Your task to perform on an android device: Open notification settings Image 0: 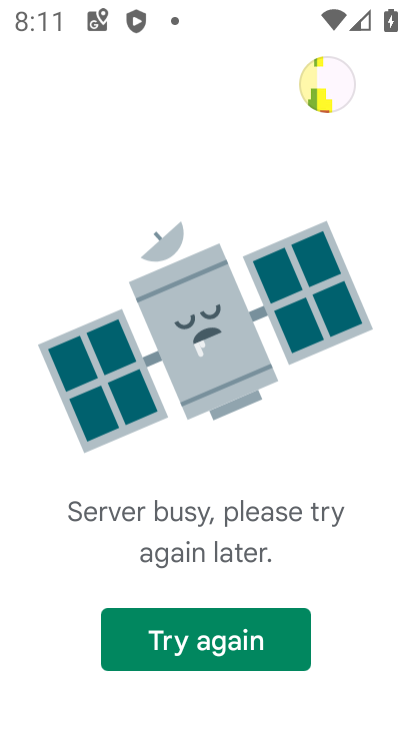
Step 0: press home button
Your task to perform on an android device: Open notification settings Image 1: 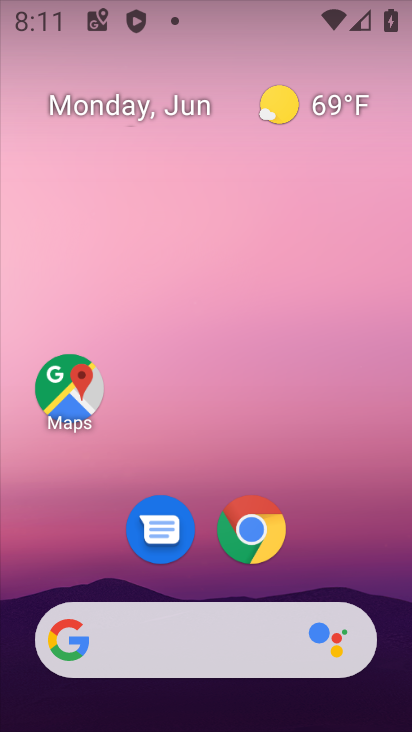
Step 1: drag from (367, 522) to (378, 351)
Your task to perform on an android device: Open notification settings Image 2: 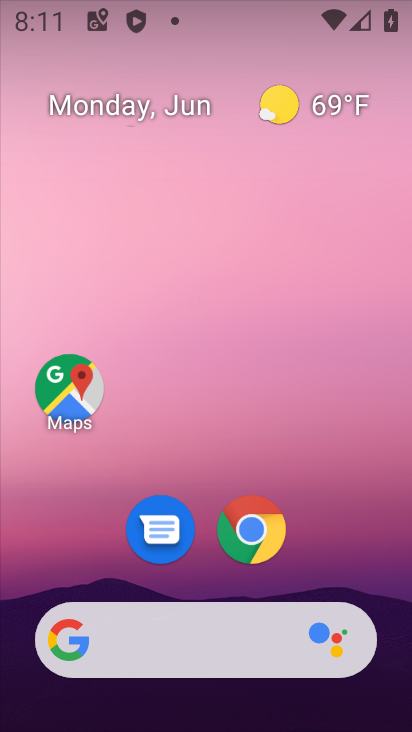
Step 2: drag from (367, 486) to (366, 250)
Your task to perform on an android device: Open notification settings Image 3: 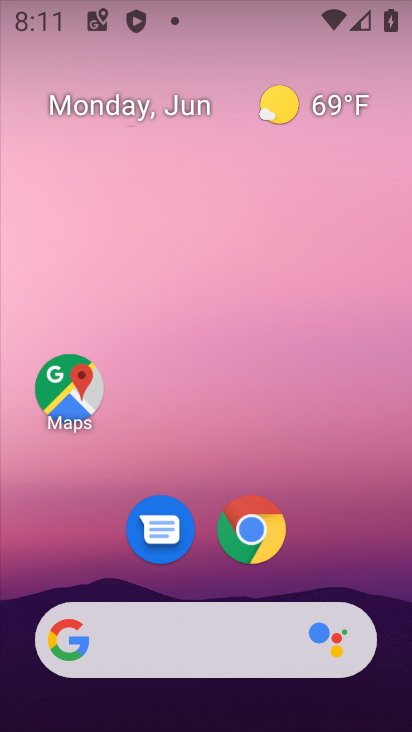
Step 3: drag from (351, 541) to (376, 236)
Your task to perform on an android device: Open notification settings Image 4: 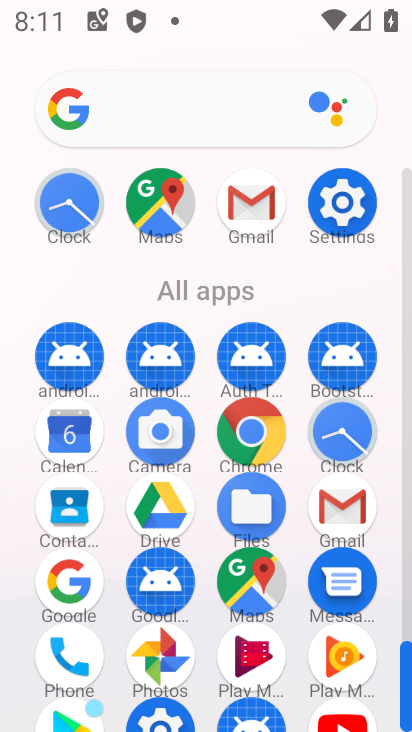
Step 4: click (333, 197)
Your task to perform on an android device: Open notification settings Image 5: 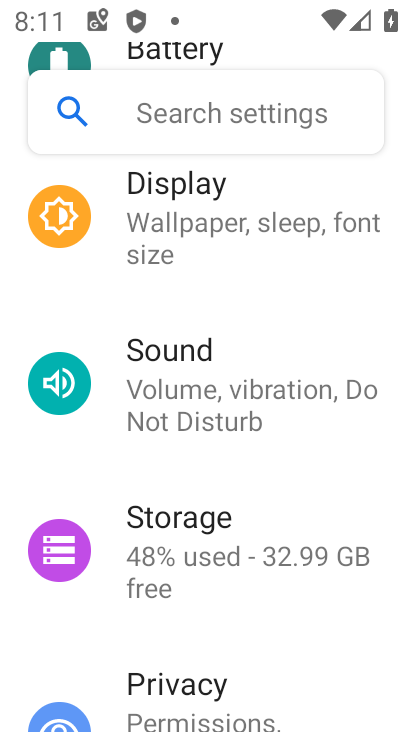
Step 5: drag from (323, 293) to (352, 452)
Your task to perform on an android device: Open notification settings Image 6: 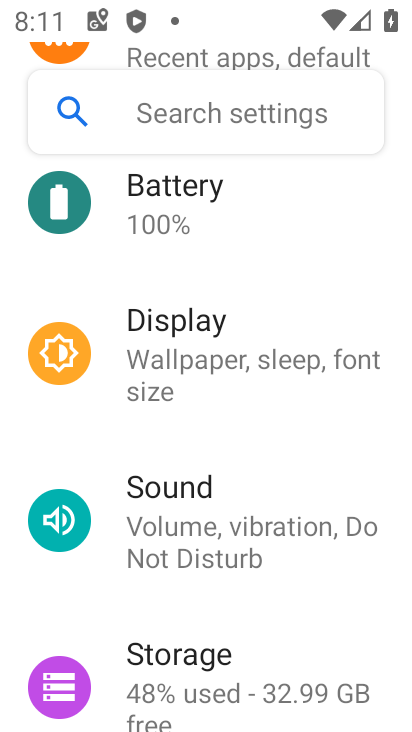
Step 6: drag from (323, 346) to (364, 666)
Your task to perform on an android device: Open notification settings Image 7: 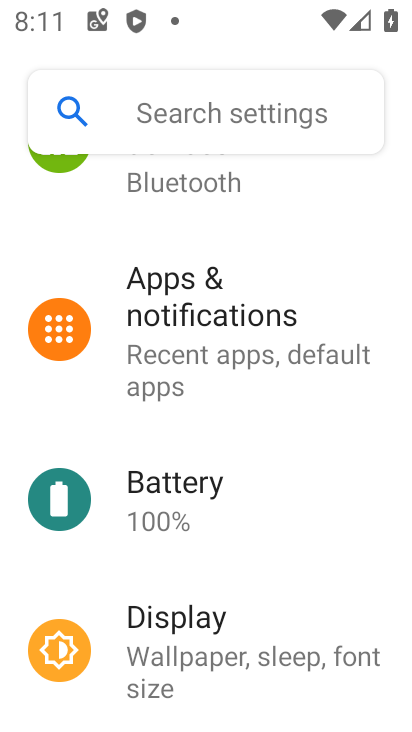
Step 7: click (315, 363)
Your task to perform on an android device: Open notification settings Image 8: 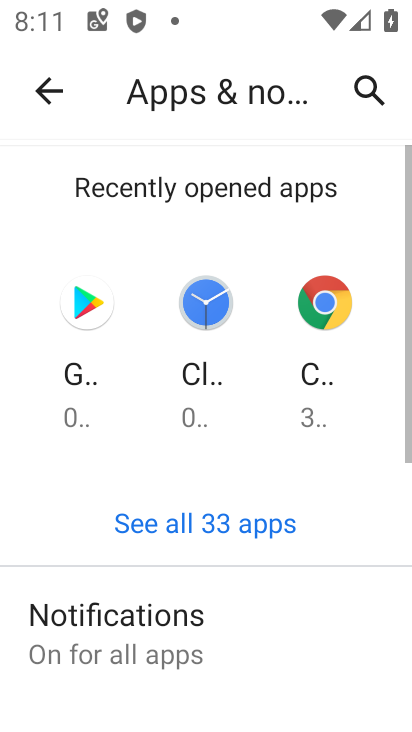
Step 8: click (178, 627)
Your task to perform on an android device: Open notification settings Image 9: 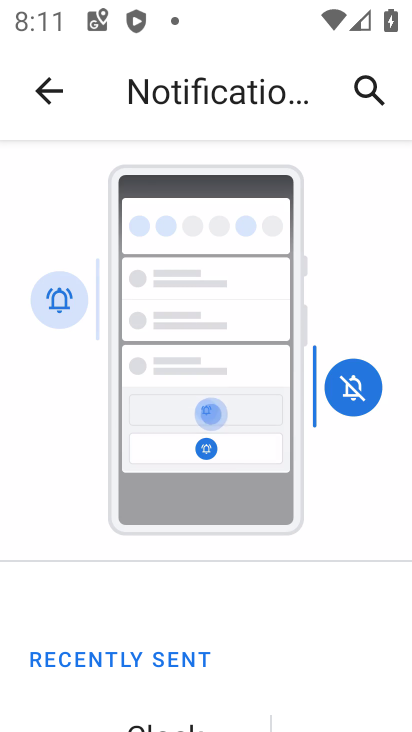
Step 9: task complete